Your task to perform on an android device: Open accessibility settings Image 0: 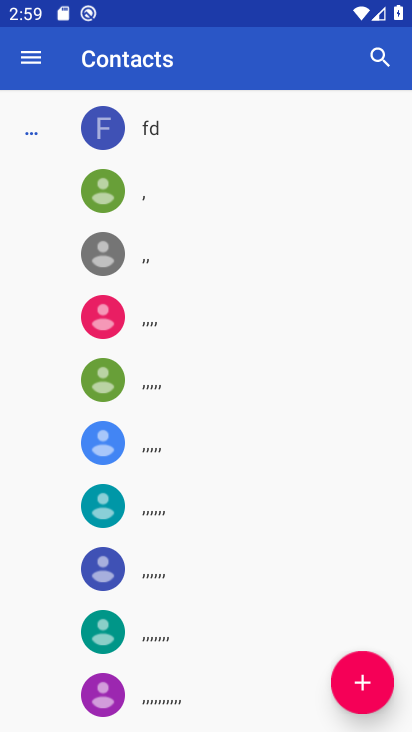
Step 0: press home button
Your task to perform on an android device: Open accessibility settings Image 1: 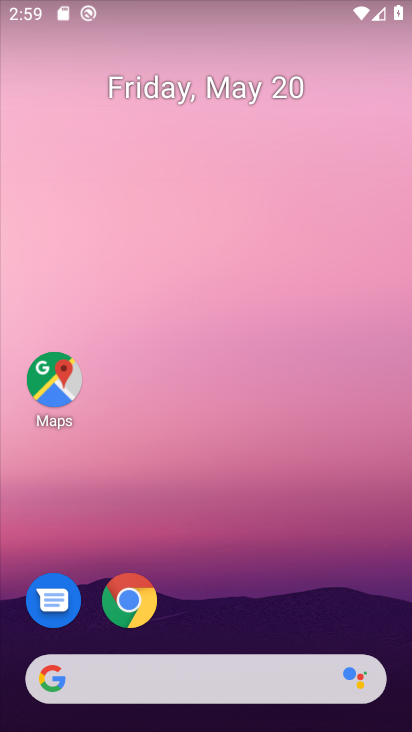
Step 1: drag from (341, 595) to (329, 195)
Your task to perform on an android device: Open accessibility settings Image 2: 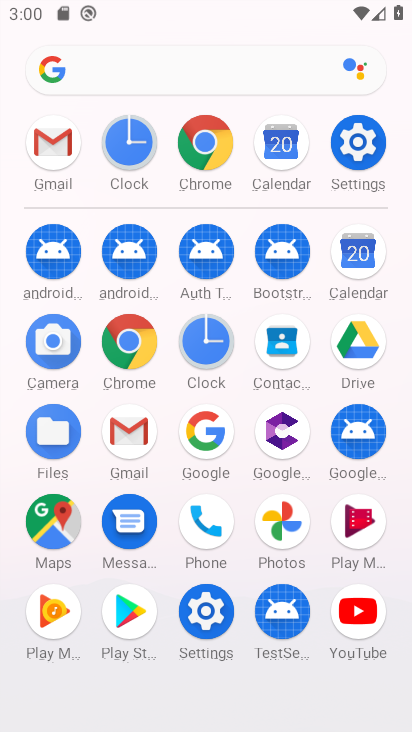
Step 2: click (216, 616)
Your task to perform on an android device: Open accessibility settings Image 3: 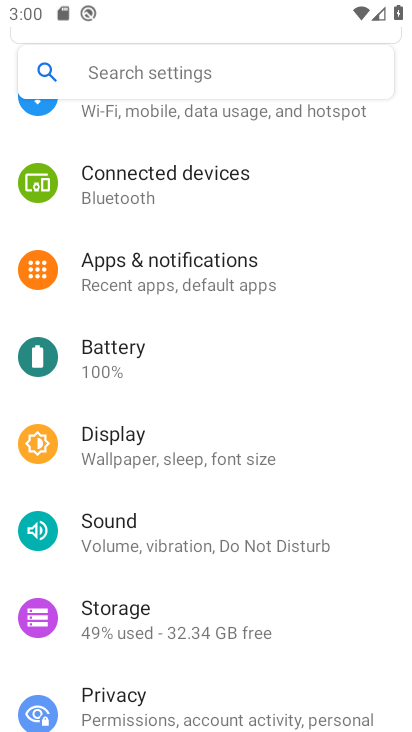
Step 3: drag from (340, 361) to (335, 512)
Your task to perform on an android device: Open accessibility settings Image 4: 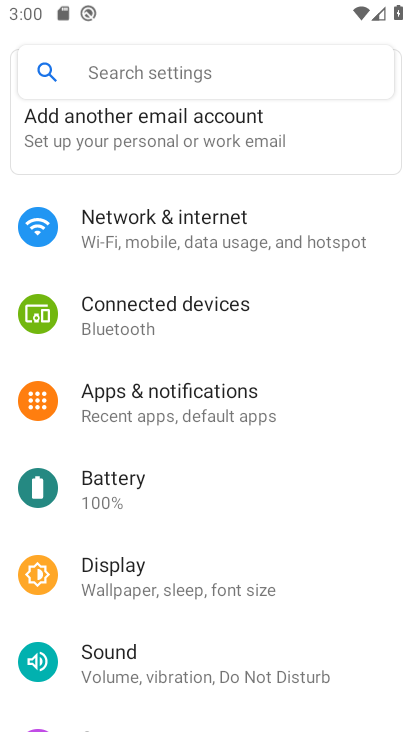
Step 4: drag from (331, 337) to (331, 485)
Your task to perform on an android device: Open accessibility settings Image 5: 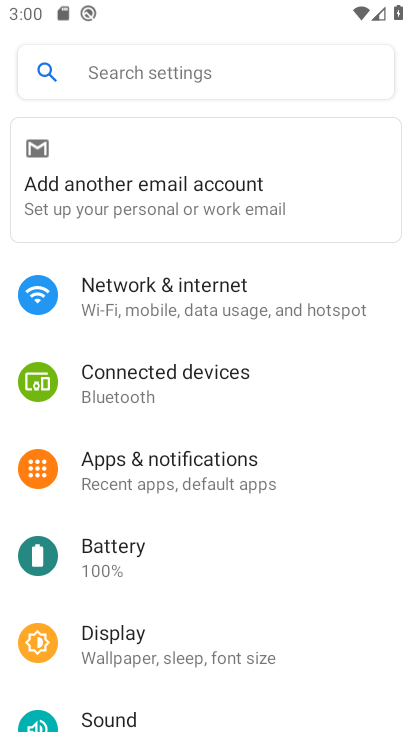
Step 5: drag from (331, 569) to (336, 424)
Your task to perform on an android device: Open accessibility settings Image 6: 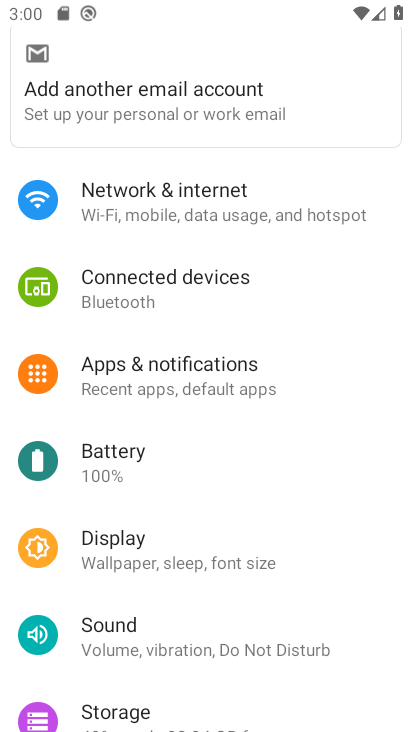
Step 6: drag from (338, 562) to (349, 448)
Your task to perform on an android device: Open accessibility settings Image 7: 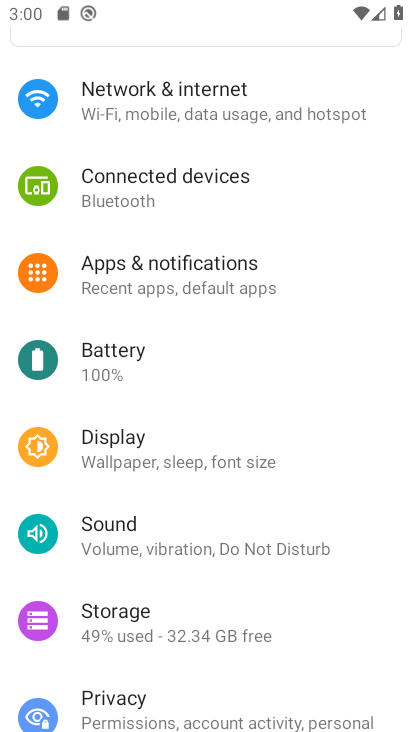
Step 7: drag from (339, 628) to (337, 505)
Your task to perform on an android device: Open accessibility settings Image 8: 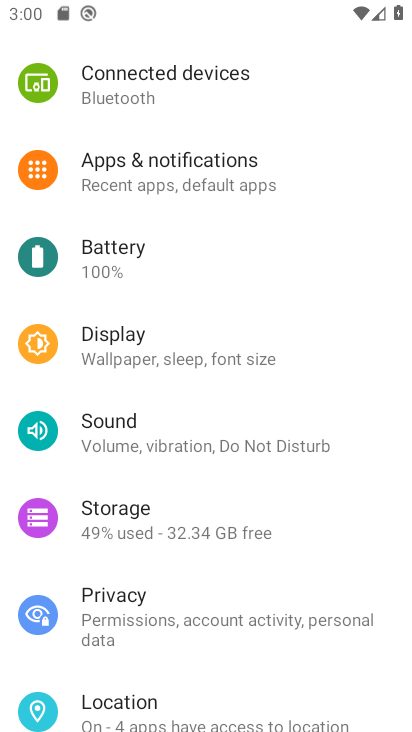
Step 8: drag from (342, 676) to (344, 530)
Your task to perform on an android device: Open accessibility settings Image 9: 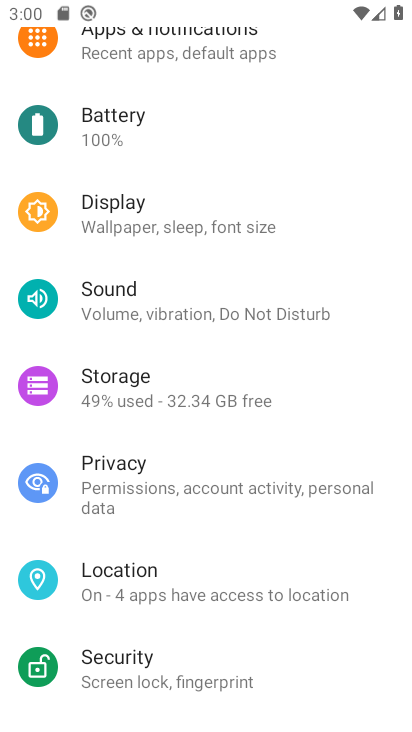
Step 9: drag from (332, 690) to (338, 547)
Your task to perform on an android device: Open accessibility settings Image 10: 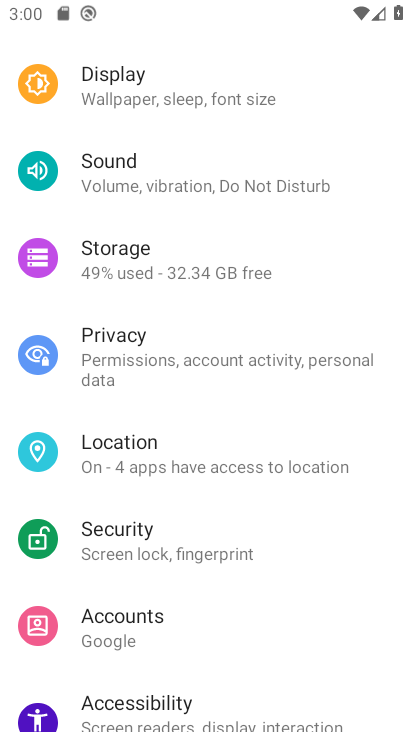
Step 10: drag from (353, 679) to (338, 539)
Your task to perform on an android device: Open accessibility settings Image 11: 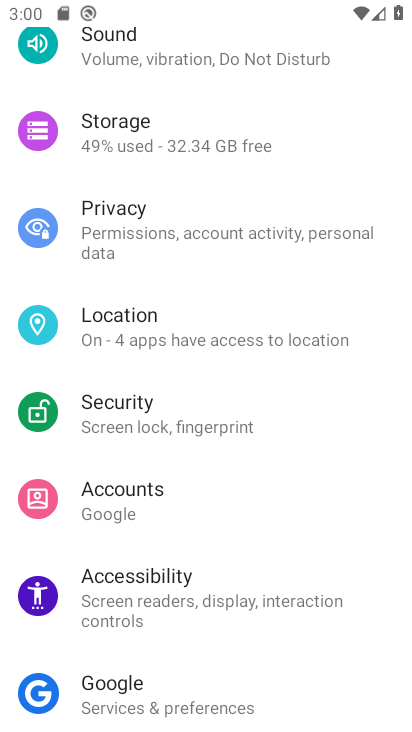
Step 11: drag from (344, 692) to (349, 582)
Your task to perform on an android device: Open accessibility settings Image 12: 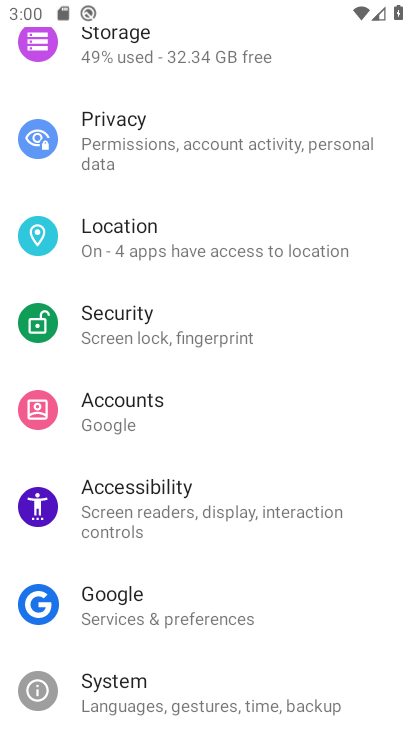
Step 12: drag from (355, 690) to (346, 563)
Your task to perform on an android device: Open accessibility settings Image 13: 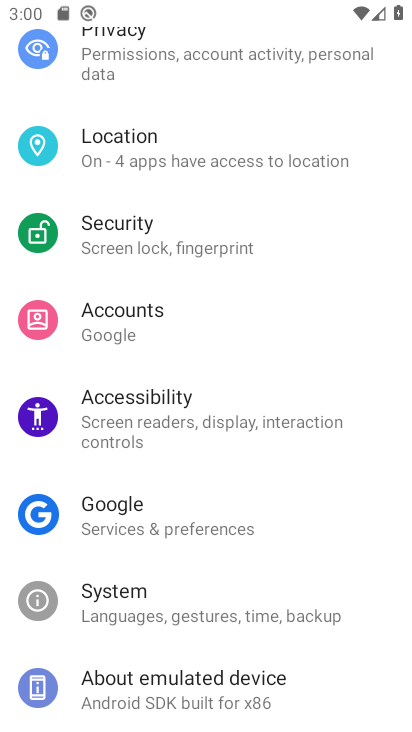
Step 13: drag from (355, 686) to (348, 555)
Your task to perform on an android device: Open accessibility settings Image 14: 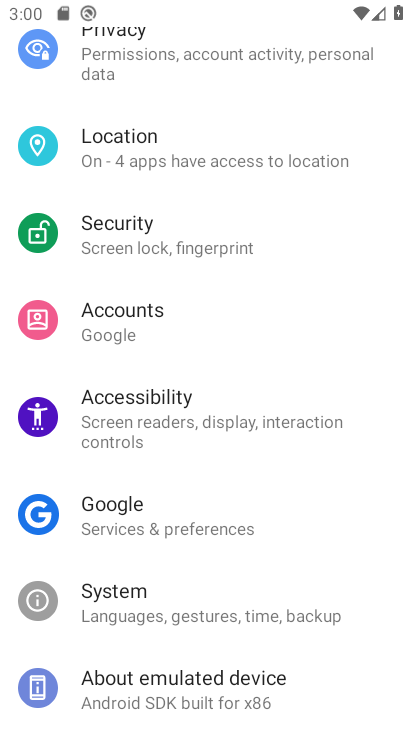
Step 14: drag from (347, 476) to (351, 617)
Your task to perform on an android device: Open accessibility settings Image 15: 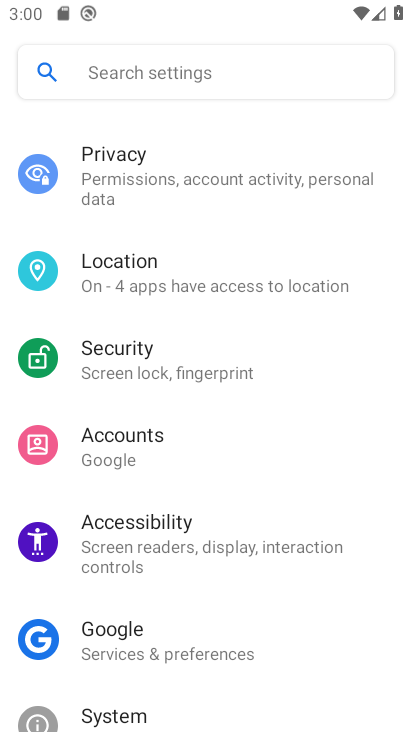
Step 15: drag from (357, 442) to (346, 628)
Your task to perform on an android device: Open accessibility settings Image 16: 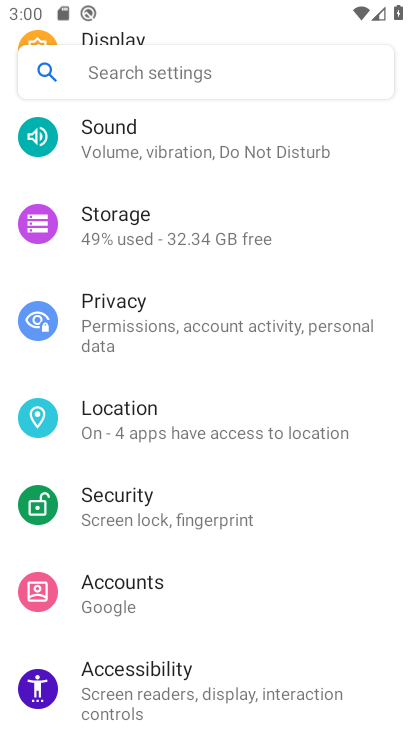
Step 16: drag from (347, 493) to (342, 598)
Your task to perform on an android device: Open accessibility settings Image 17: 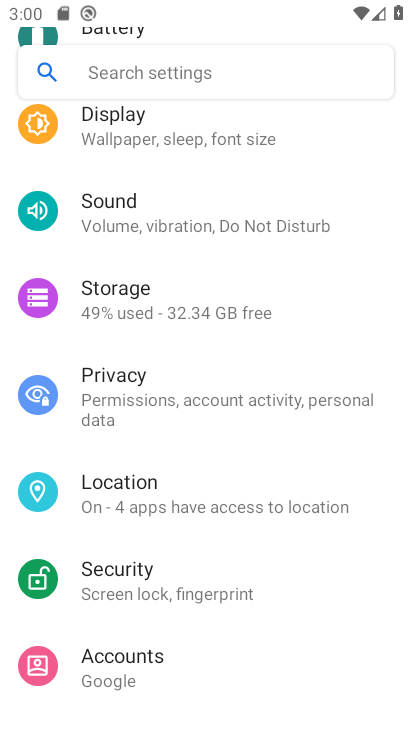
Step 17: drag from (338, 460) to (332, 623)
Your task to perform on an android device: Open accessibility settings Image 18: 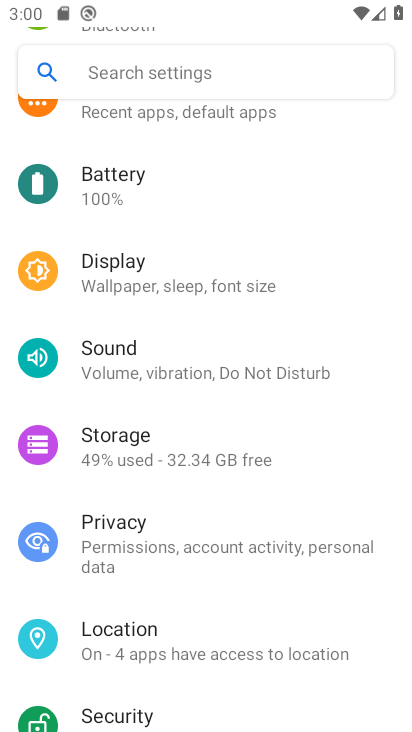
Step 18: drag from (341, 457) to (342, 598)
Your task to perform on an android device: Open accessibility settings Image 19: 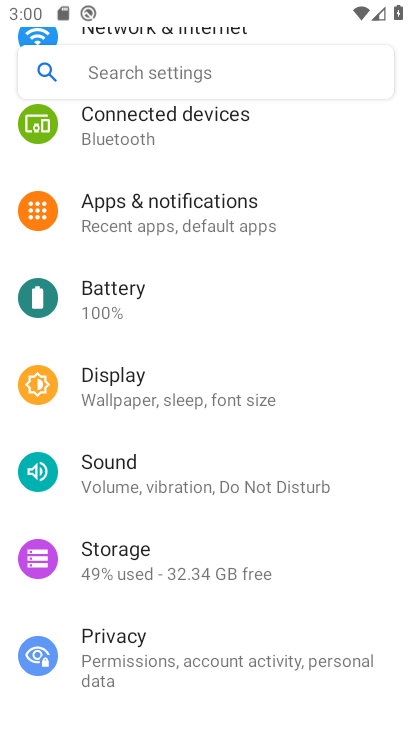
Step 19: drag from (348, 424) to (337, 566)
Your task to perform on an android device: Open accessibility settings Image 20: 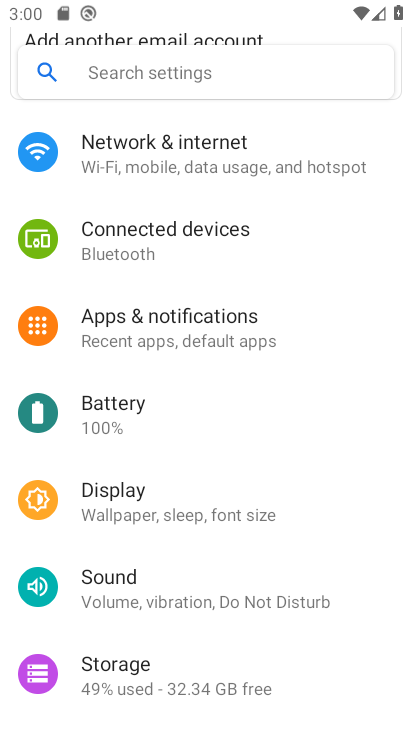
Step 20: drag from (335, 418) to (336, 531)
Your task to perform on an android device: Open accessibility settings Image 21: 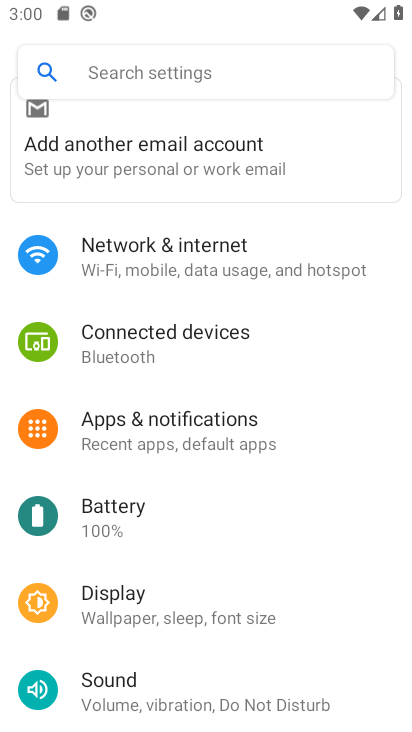
Step 21: drag from (329, 592) to (311, 373)
Your task to perform on an android device: Open accessibility settings Image 22: 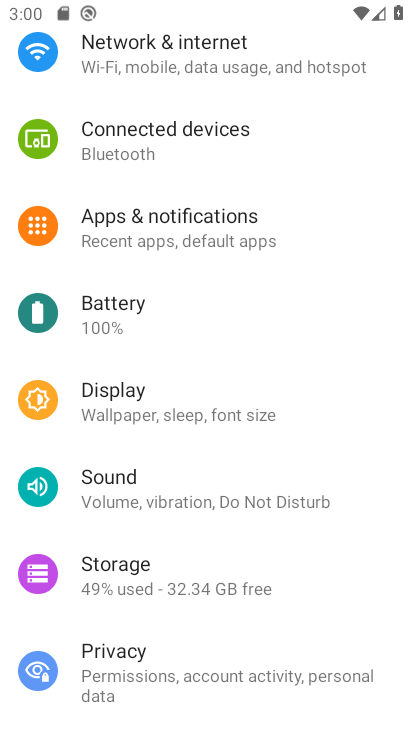
Step 22: drag from (322, 625) to (317, 465)
Your task to perform on an android device: Open accessibility settings Image 23: 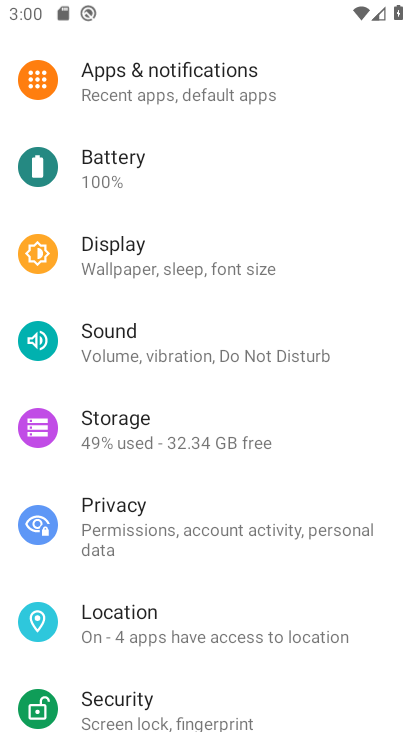
Step 23: drag from (323, 656) to (326, 486)
Your task to perform on an android device: Open accessibility settings Image 24: 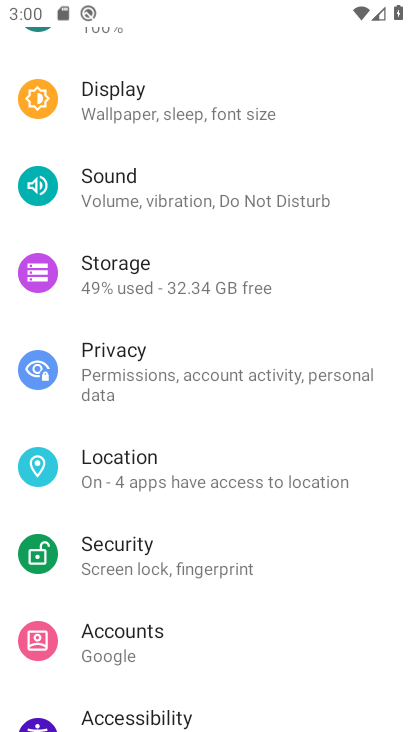
Step 24: drag from (334, 671) to (335, 487)
Your task to perform on an android device: Open accessibility settings Image 25: 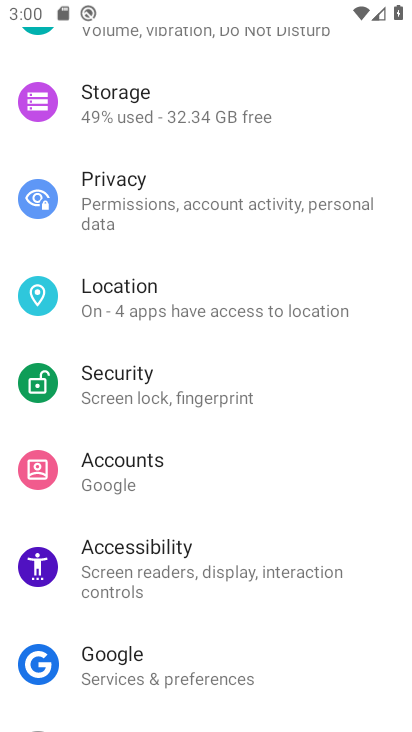
Step 25: click (223, 582)
Your task to perform on an android device: Open accessibility settings Image 26: 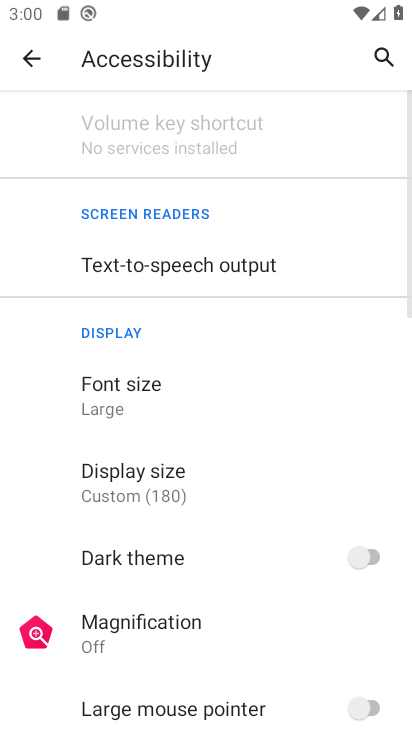
Step 26: task complete